Your task to perform on an android device: check storage Image 0: 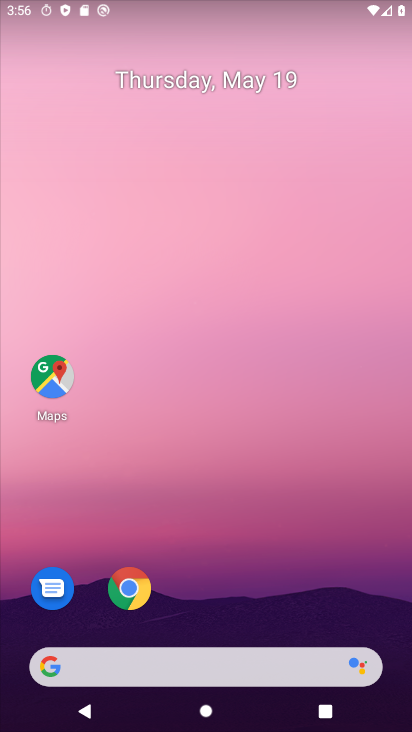
Step 0: drag from (243, 613) to (264, 168)
Your task to perform on an android device: check storage Image 1: 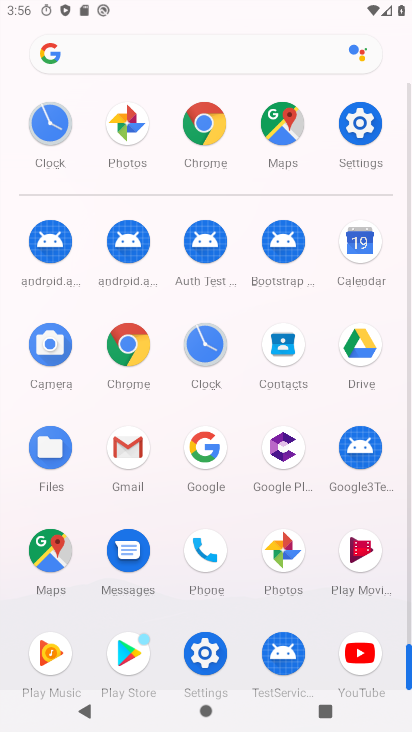
Step 1: click (198, 668)
Your task to perform on an android device: check storage Image 2: 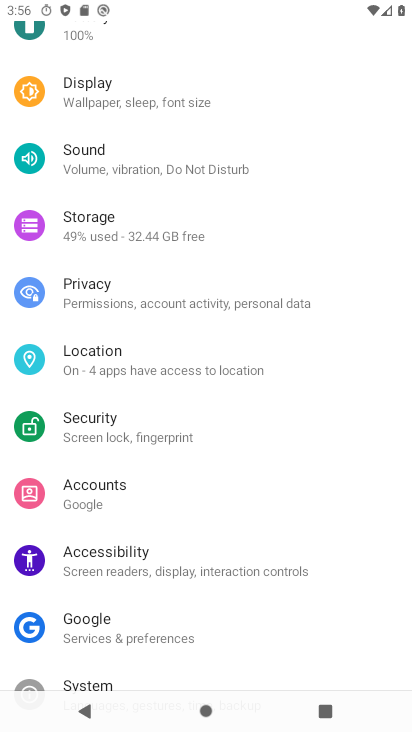
Step 2: drag from (126, 613) to (169, 410)
Your task to perform on an android device: check storage Image 3: 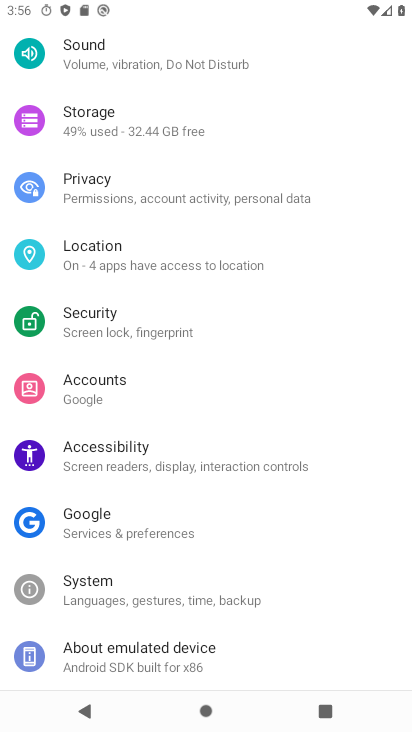
Step 3: click (140, 136)
Your task to perform on an android device: check storage Image 4: 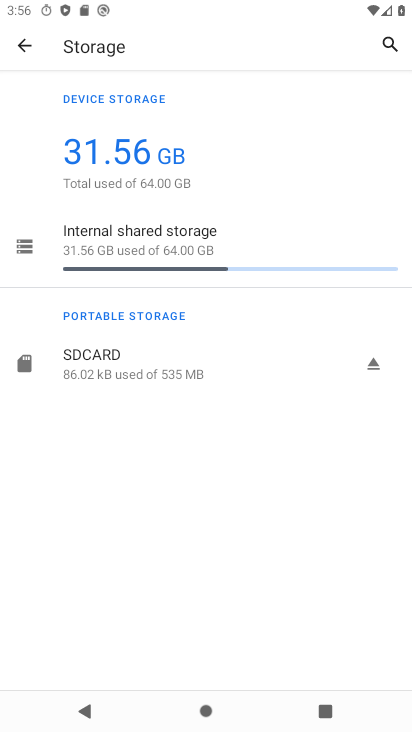
Step 4: click (160, 238)
Your task to perform on an android device: check storage Image 5: 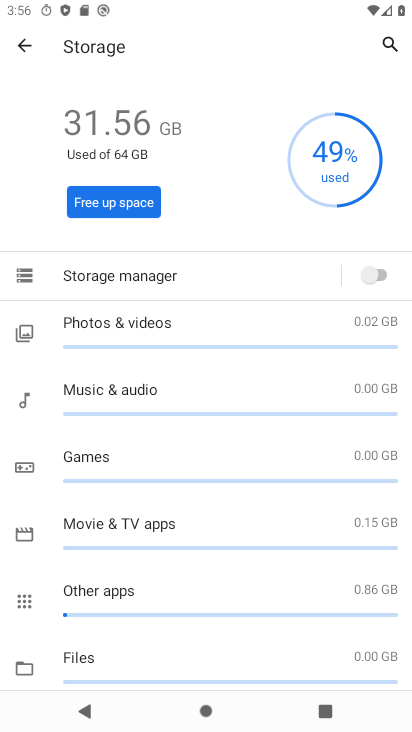
Step 5: task complete